Your task to perform on an android device: turn on the 12-hour format for clock Image 0: 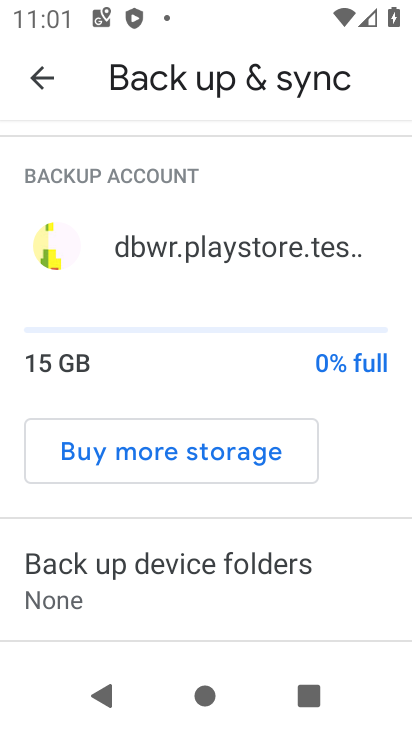
Step 0: press home button
Your task to perform on an android device: turn on the 12-hour format for clock Image 1: 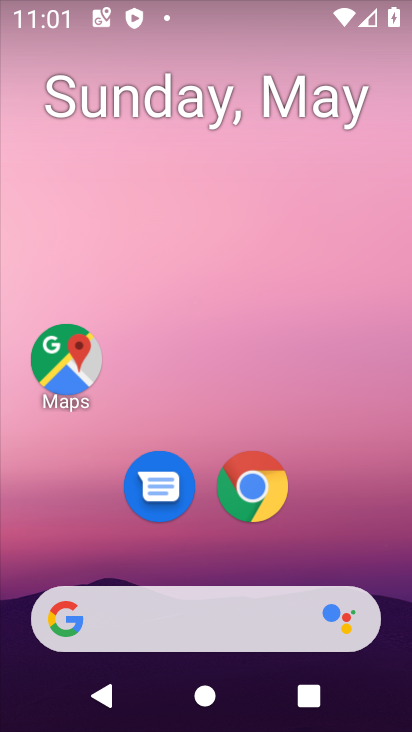
Step 1: drag from (287, 565) to (311, 133)
Your task to perform on an android device: turn on the 12-hour format for clock Image 2: 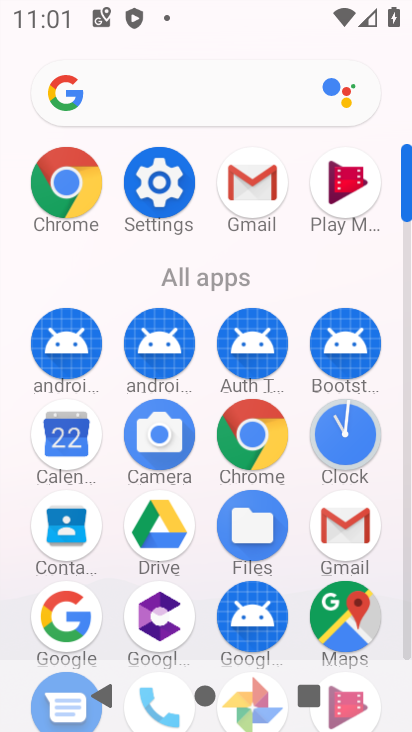
Step 2: click (336, 468)
Your task to perform on an android device: turn on the 12-hour format for clock Image 3: 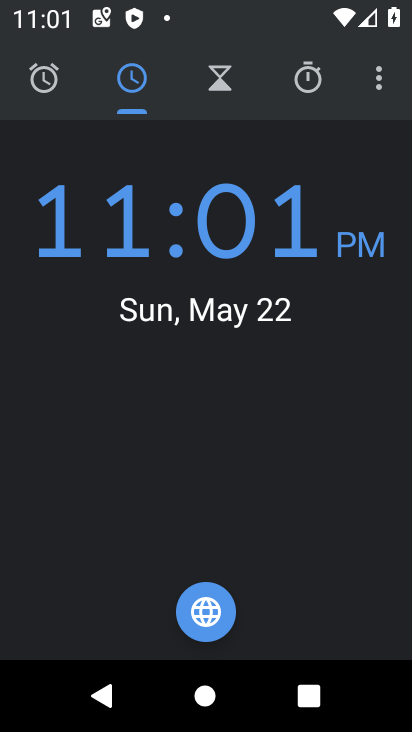
Step 3: click (374, 78)
Your task to perform on an android device: turn on the 12-hour format for clock Image 4: 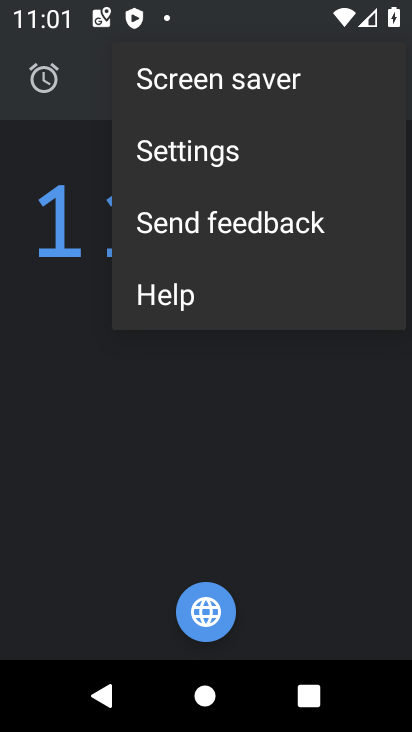
Step 4: click (235, 171)
Your task to perform on an android device: turn on the 12-hour format for clock Image 5: 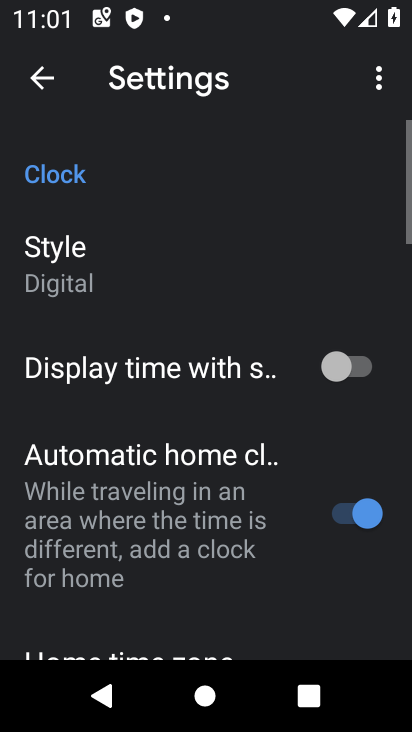
Step 5: drag from (201, 565) to (246, 301)
Your task to perform on an android device: turn on the 12-hour format for clock Image 6: 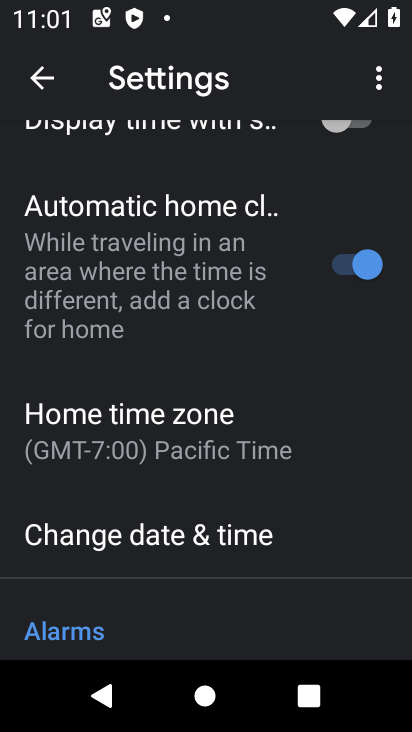
Step 6: click (174, 534)
Your task to perform on an android device: turn on the 12-hour format for clock Image 7: 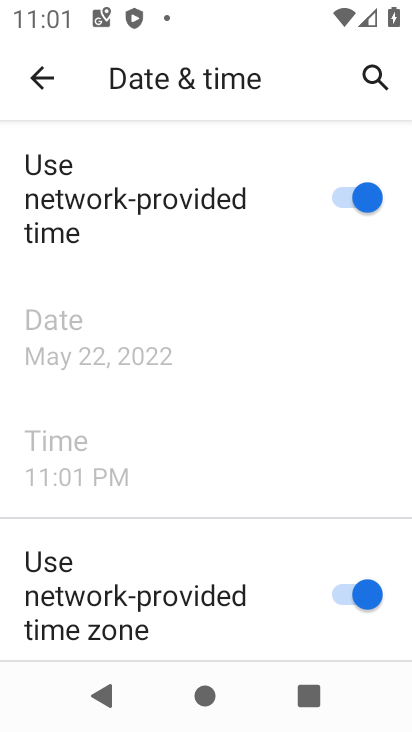
Step 7: drag from (194, 605) to (219, 328)
Your task to perform on an android device: turn on the 12-hour format for clock Image 8: 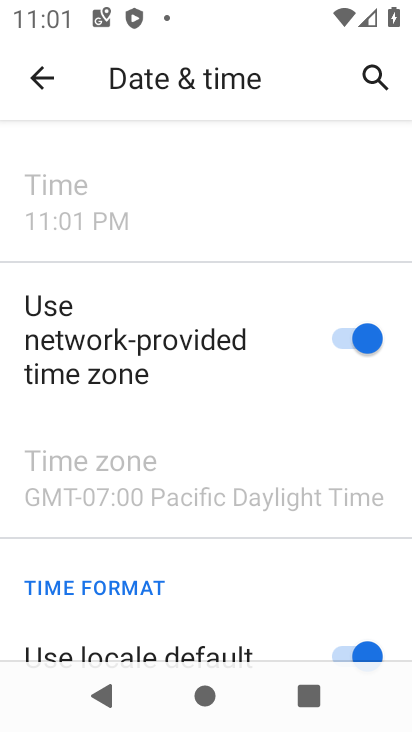
Step 8: drag from (204, 612) to (232, 402)
Your task to perform on an android device: turn on the 12-hour format for clock Image 9: 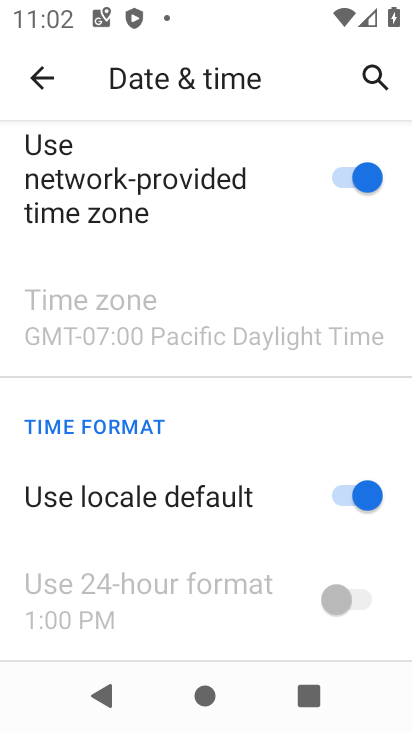
Step 9: click (348, 502)
Your task to perform on an android device: turn on the 12-hour format for clock Image 10: 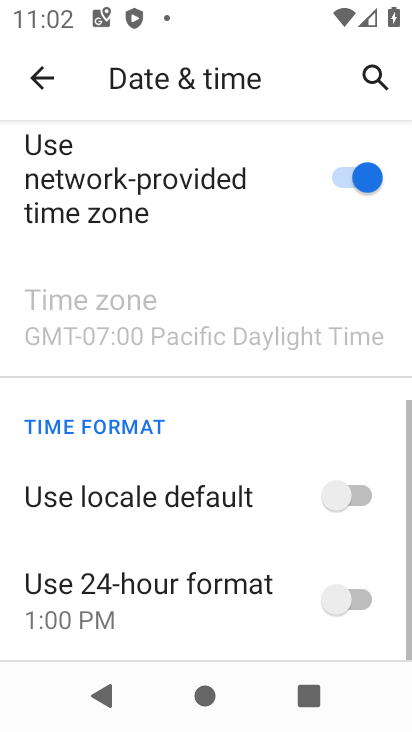
Step 10: click (356, 499)
Your task to perform on an android device: turn on the 12-hour format for clock Image 11: 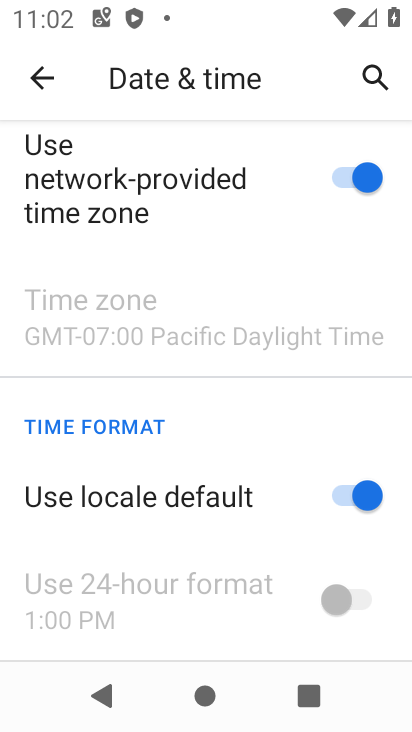
Step 11: task complete